Your task to perform on an android device: Go to CNN.com Image 0: 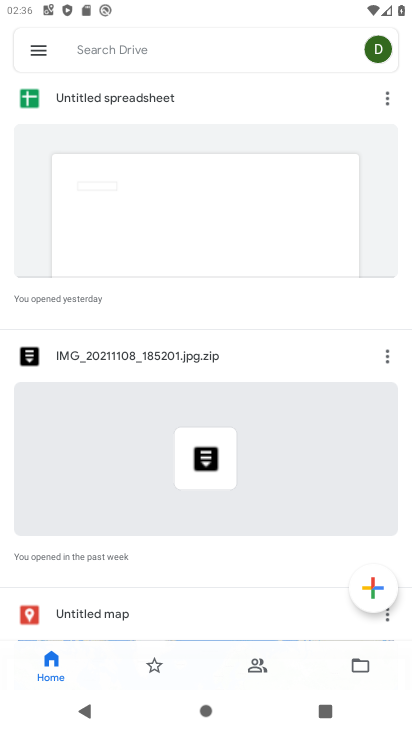
Step 0: press home button
Your task to perform on an android device: Go to CNN.com Image 1: 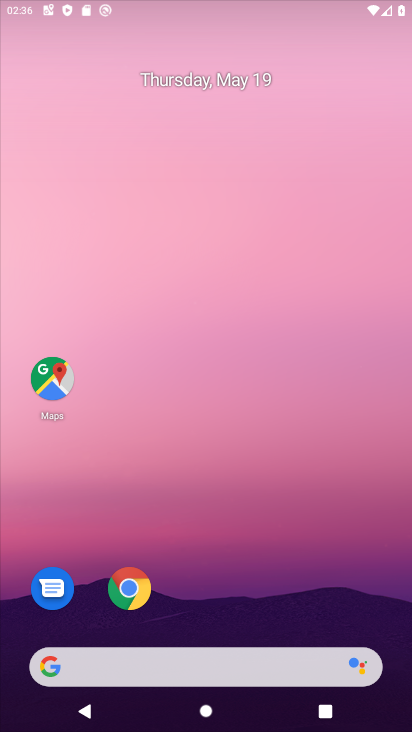
Step 1: drag from (204, 573) to (202, 74)
Your task to perform on an android device: Go to CNN.com Image 2: 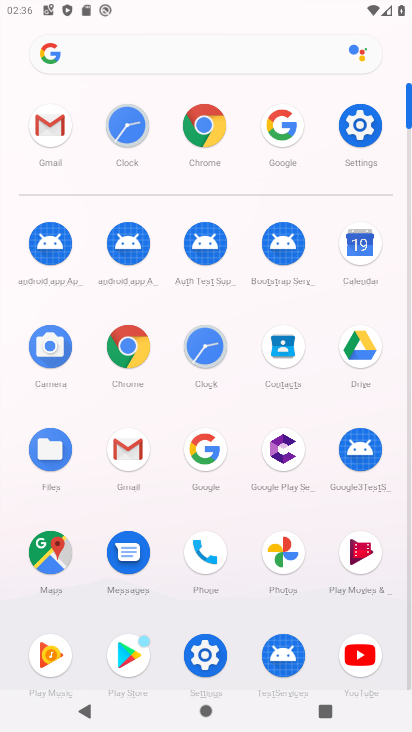
Step 2: click (284, 123)
Your task to perform on an android device: Go to CNN.com Image 3: 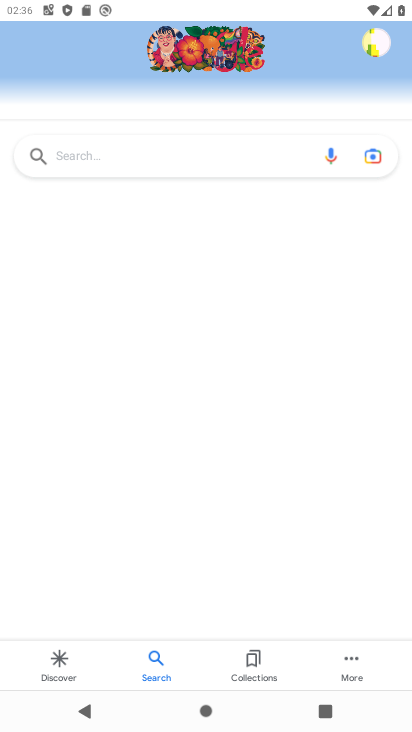
Step 3: click (146, 153)
Your task to perform on an android device: Go to CNN.com Image 4: 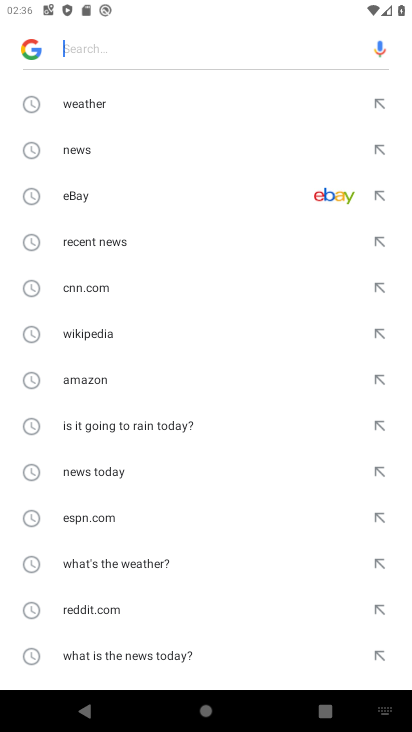
Step 4: click (102, 289)
Your task to perform on an android device: Go to CNN.com Image 5: 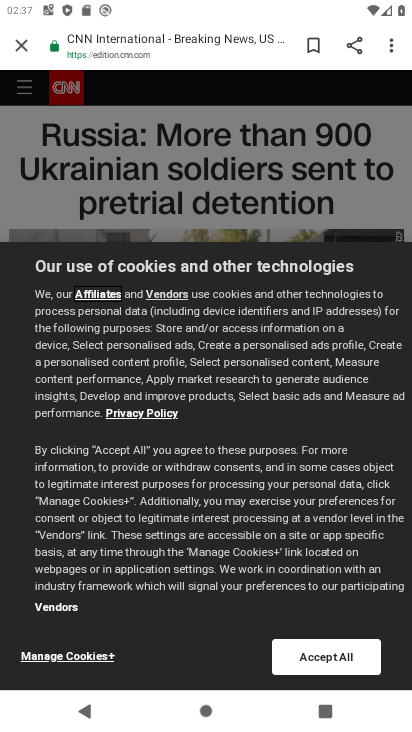
Step 5: task complete